Your task to perform on an android device: toggle sleep mode Image 0: 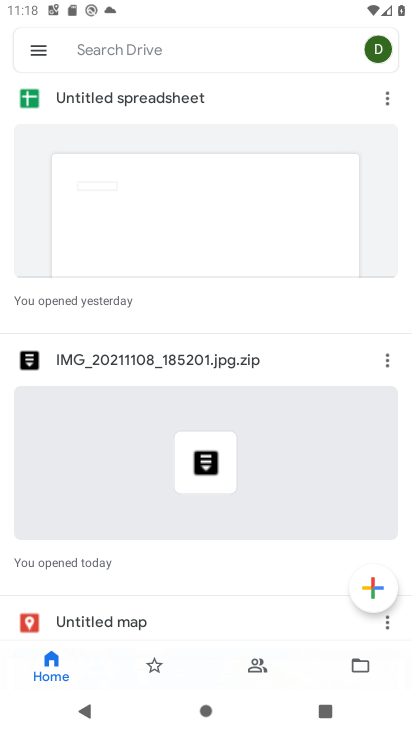
Step 0: press home button
Your task to perform on an android device: toggle sleep mode Image 1: 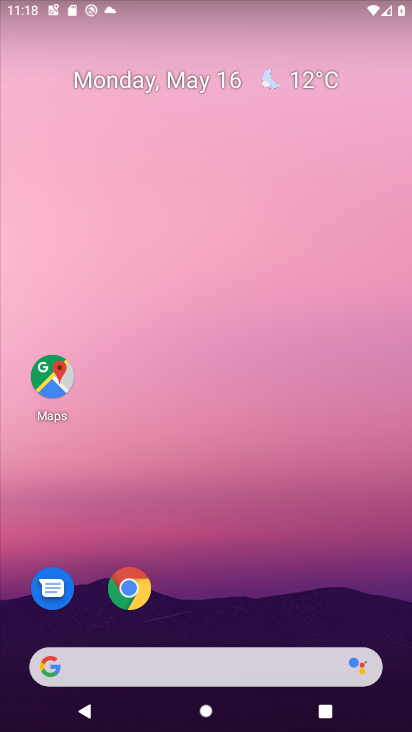
Step 1: drag from (214, 601) to (269, 0)
Your task to perform on an android device: toggle sleep mode Image 2: 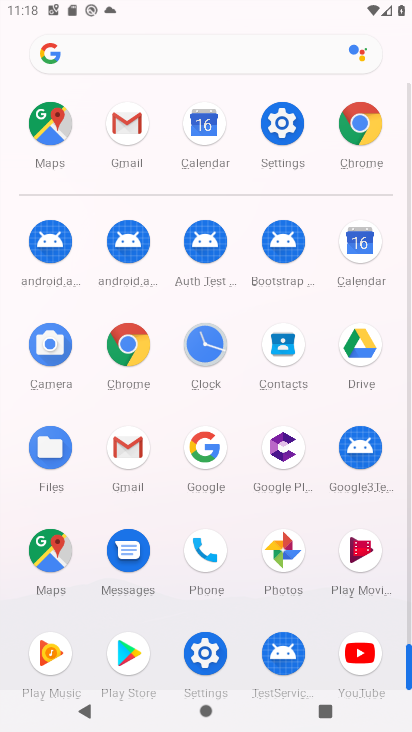
Step 2: click (283, 117)
Your task to perform on an android device: toggle sleep mode Image 3: 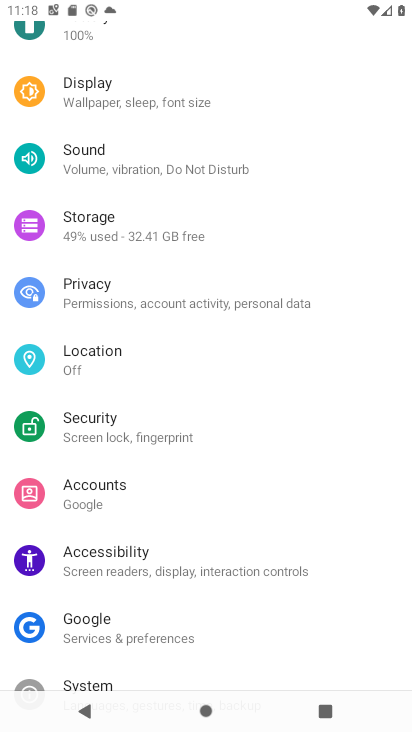
Step 3: click (131, 72)
Your task to perform on an android device: toggle sleep mode Image 4: 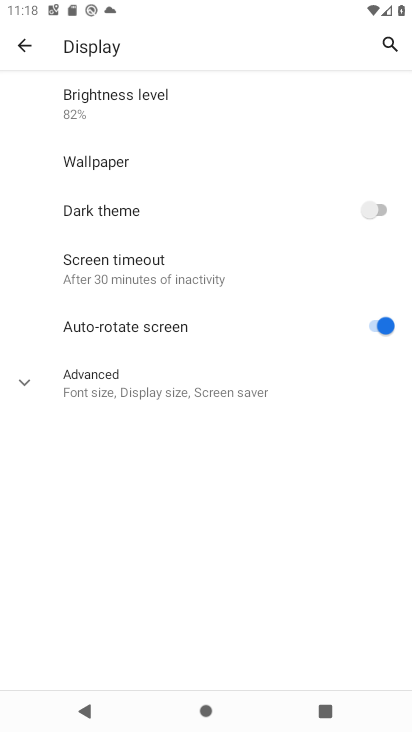
Step 4: click (26, 376)
Your task to perform on an android device: toggle sleep mode Image 5: 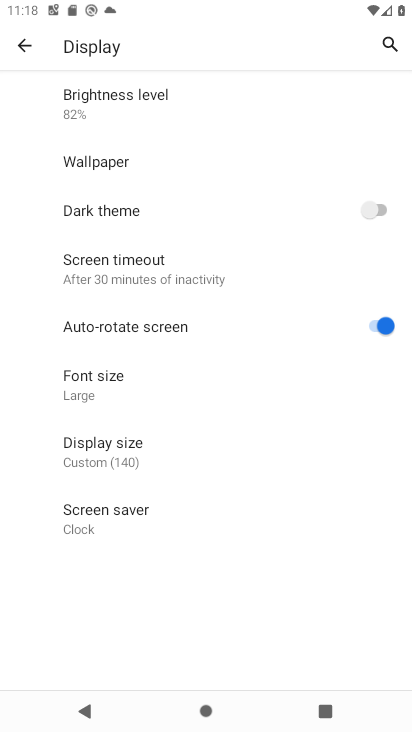
Step 5: task complete